Your task to perform on an android device: show emergency info Image 0: 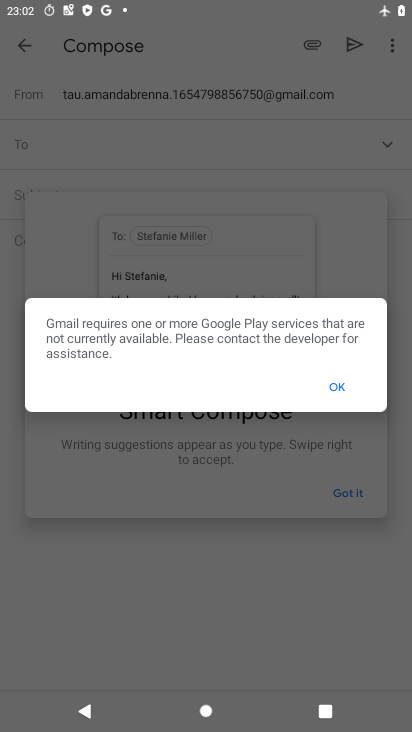
Step 0: press home button
Your task to perform on an android device: show emergency info Image 1: 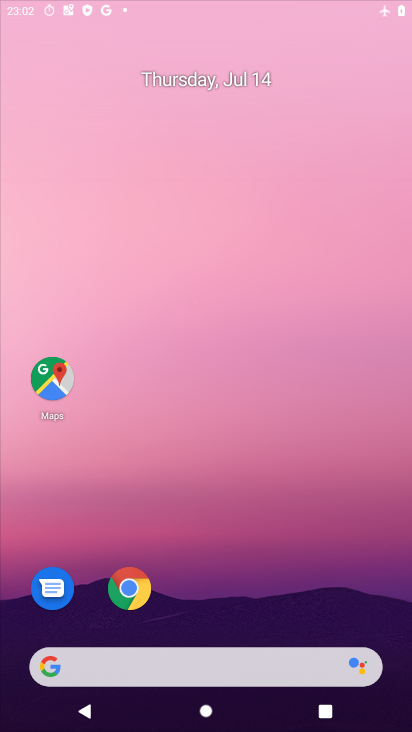
Step 1: drag from (241, 612) to (281, 79)
Your task to perform on an android device: show emergency info Image 2: 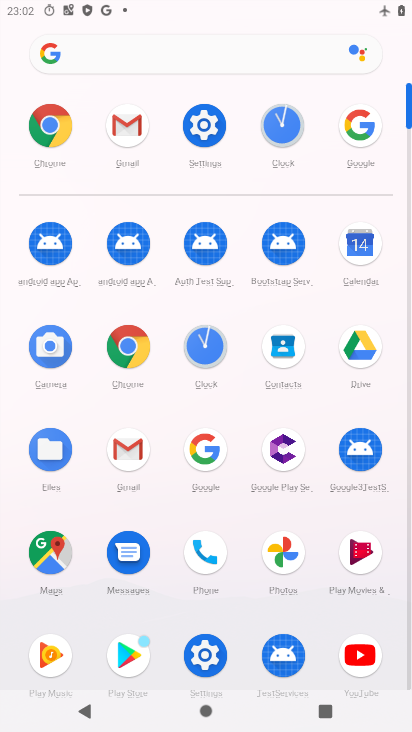
Step 2: click (209, 122)
Your task to perform on an android device: show emergency info Image 3: 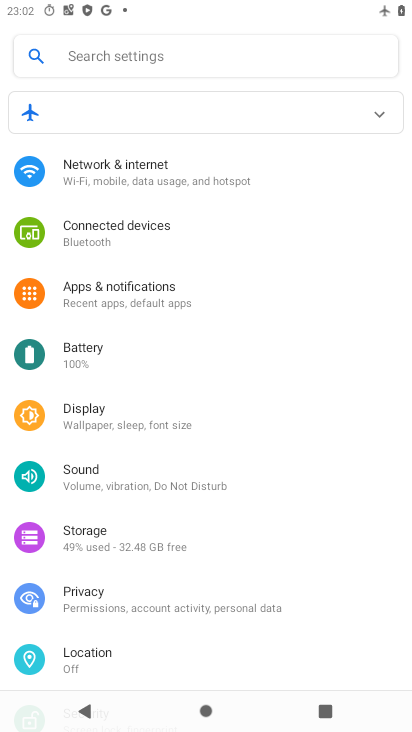
Step 3: drag from (190, 573) to (240, 191)
Your task to perform on an android device: show emergency info Image 4: 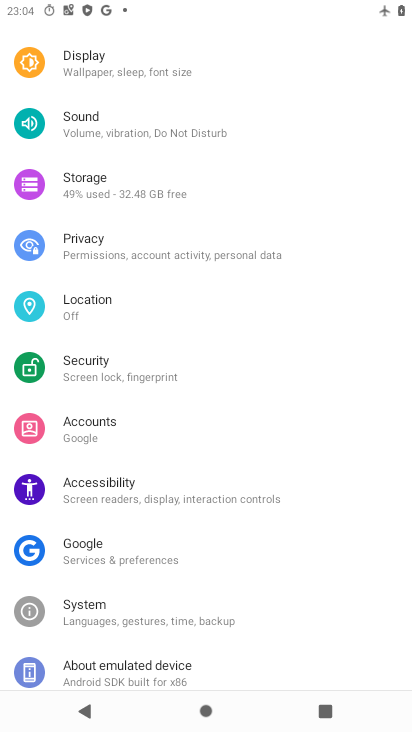
Step 4: drag from (132, 608) to (139, 180)
Your task to perform on an android device: show emergency info Image 5: 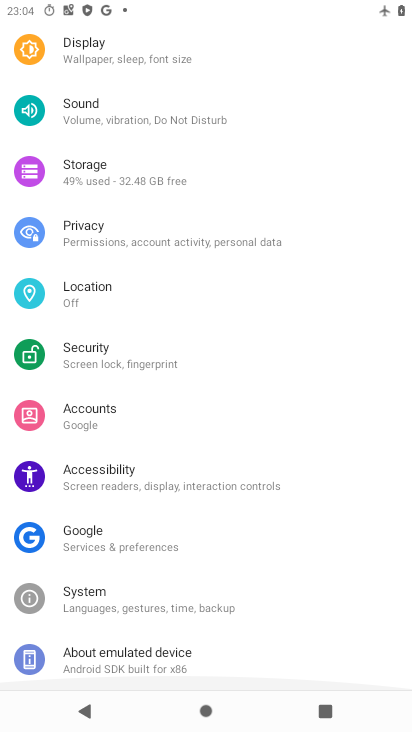
Step 5: click (125, 664)
Your task to perform on an android device: show emergency info Image 6: 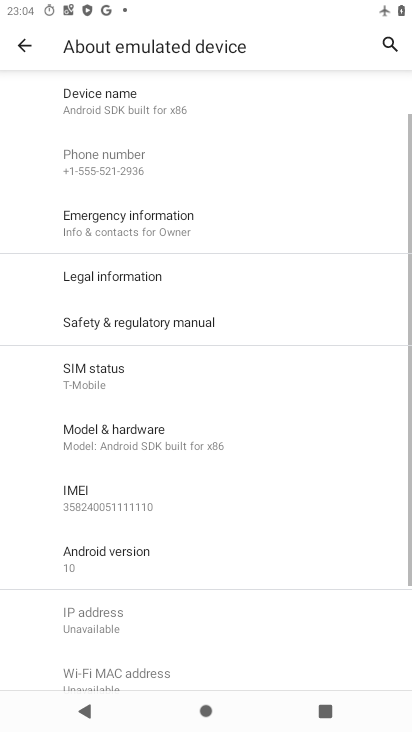
Step 6: click (130, 219)
Your task to perform on an android device: show emergency info Image 7: 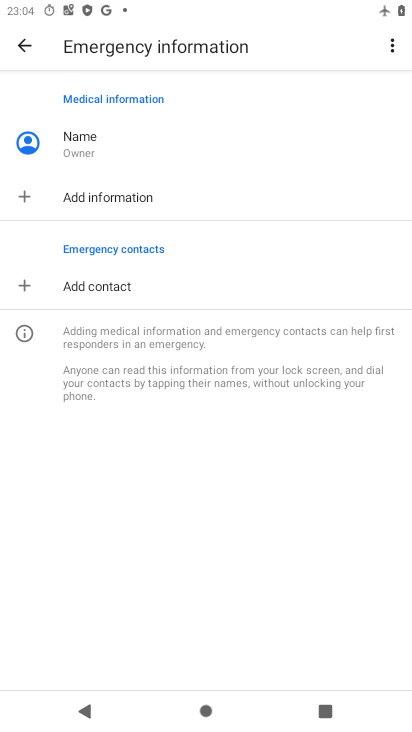
Step 7: task complete